Your task to perform on an android device: add a label to a message in the gmail app Image 0: 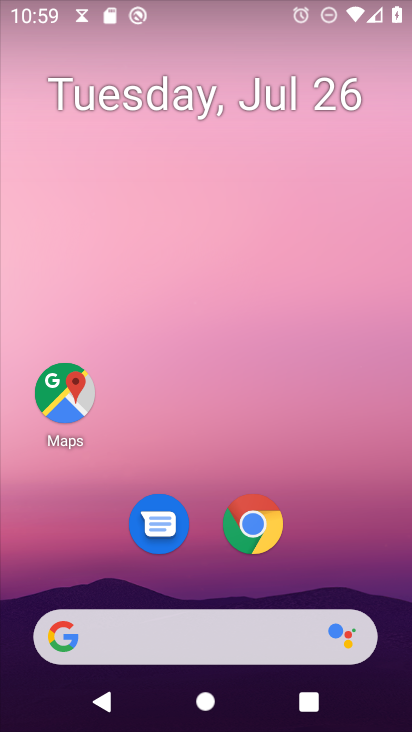
Step 0: drag from (188, 638) to (309, 140)
Your task to perform on an android device: add a label to a message in the gmail app Image 1: 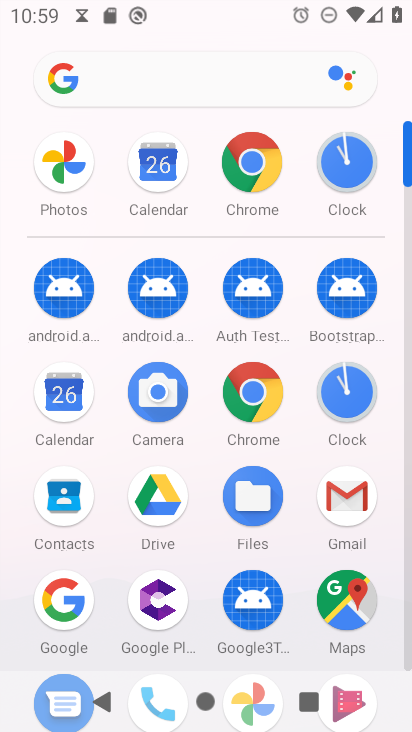
Step 1: click (351, 496)
Your task to perform on an android device: add a label to a message in the gmail app Image 2: 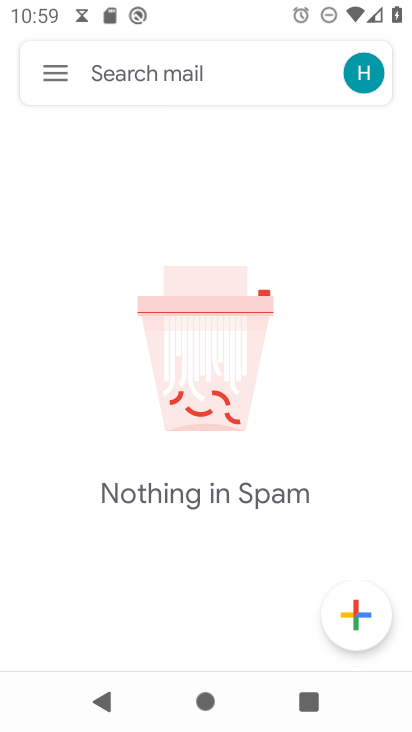
Step 2: click (57, 72)
Your task to perform on an android device: add a label to a message in the gmail app Image 3: 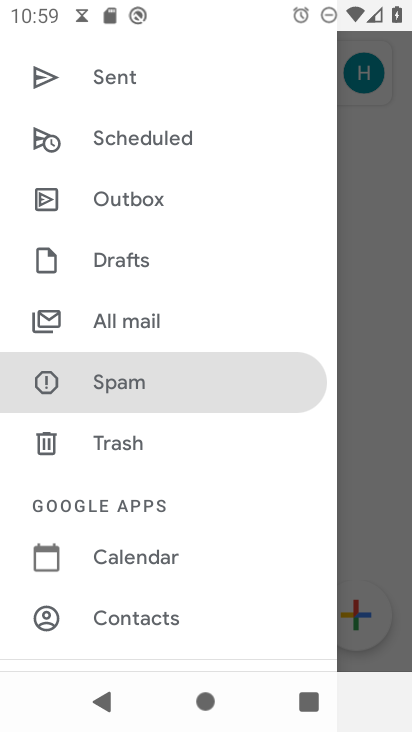
Step 3: click (133, 324)
Your task to perform on an android device: add a label to a message in the gmail app Image 4: 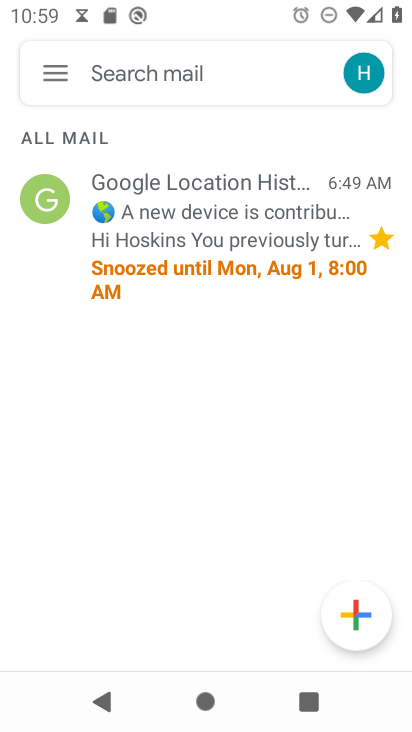
Step 4: click (180, 205)
Your task to perform on an android device: add a label to a message in the gmail app Image 5: 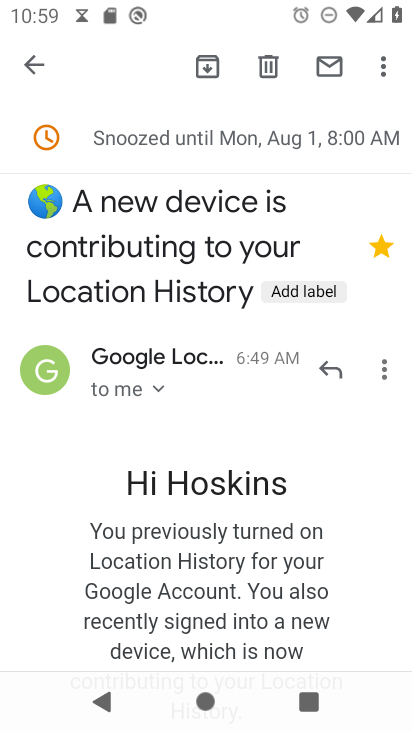
Step 5: click (330, 288)
Your task to perform on an android device: add a label to a message in the gmail app Image 6: 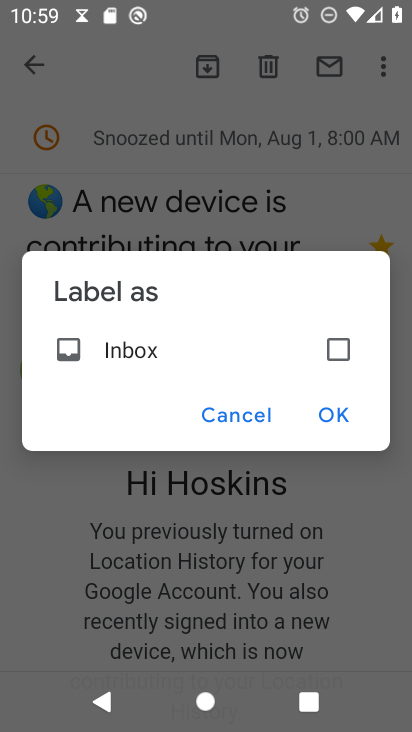
Step 6: click (335, 347)
Your task to perform on an android device: add a label to a message in the gmail app Image 7: 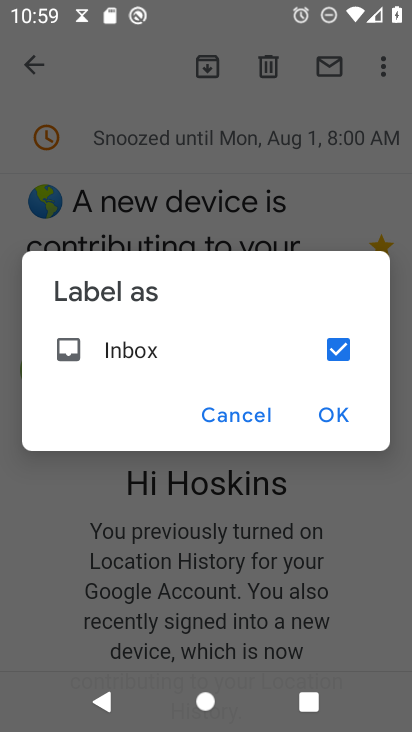
Step 7: click (332, 413)
Your task to perform on an android device: add a label to a message in the gmail app Image 8: 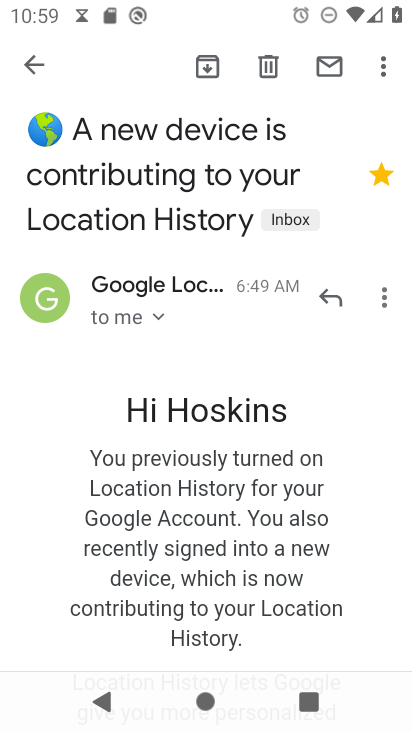
Step 8: task complete